Your task to perform on an android device: Open maps Image 0: 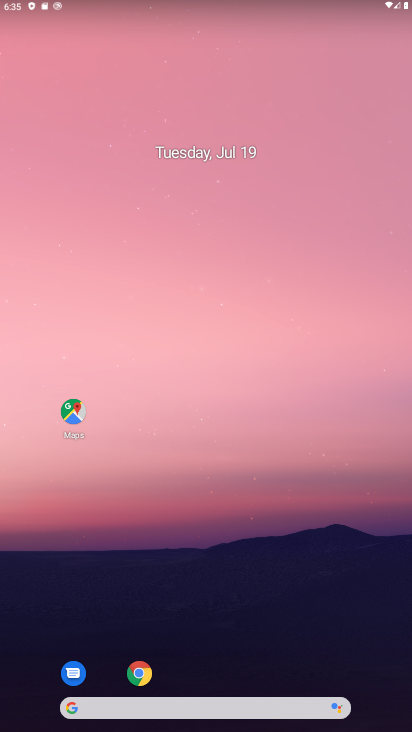
Step 0: drag from (333, 616) to (4, 75)
Your task to perform on an android device: Open maps Image 1: 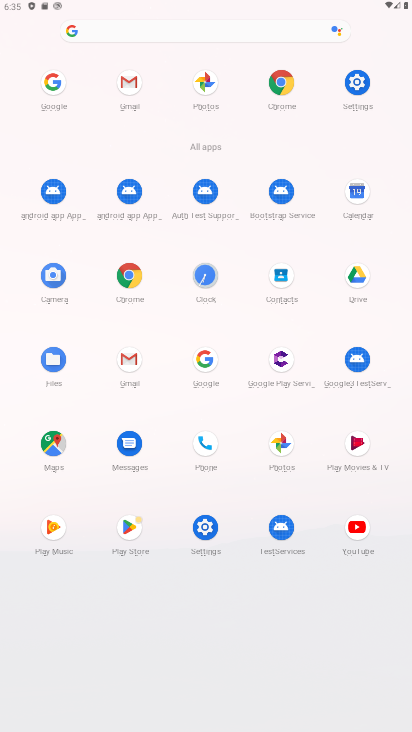
Step 1: click (48, 445)
Your task to perform on an android device: Open maps Image 2: 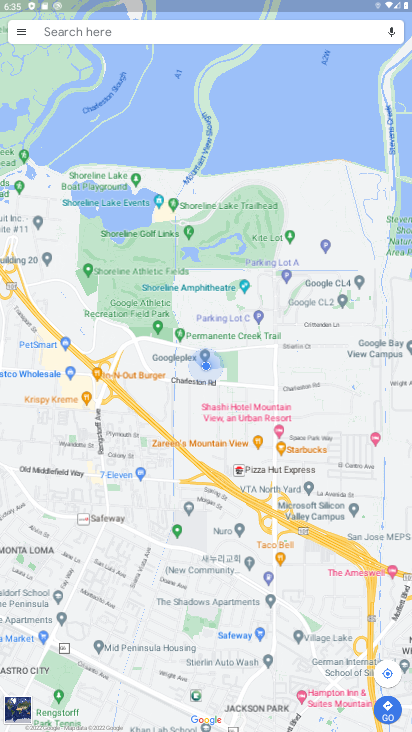
Step 2: task complete